Your task to perform on an android device: Open my contact list Image 0: 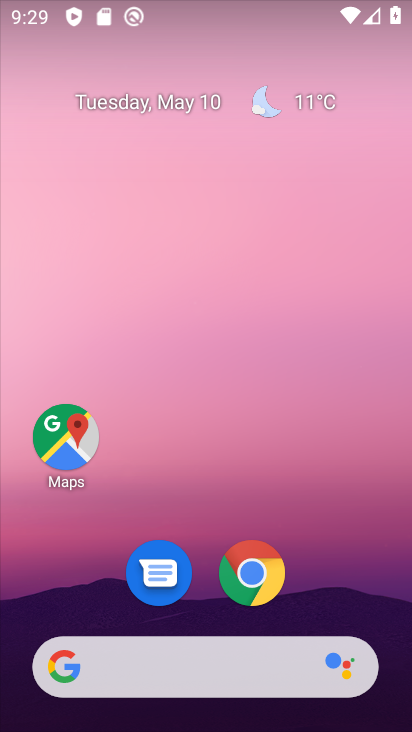
Step 0: drag from (304, 507) to (276, 137)
Your task to perform on an android device: Open my contact list Image 1: 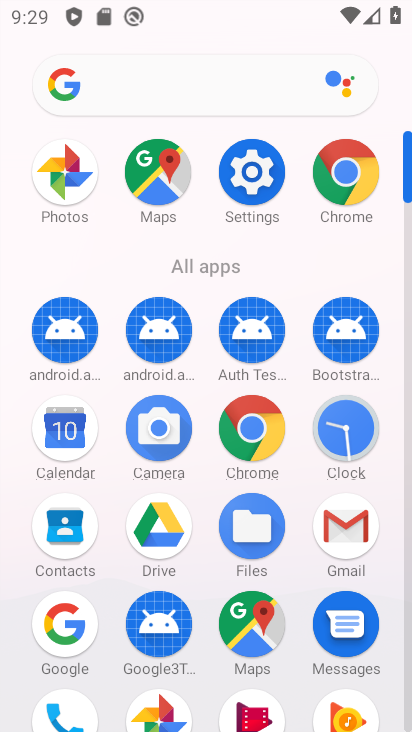
Step 1: drag from (310, 653) to (316, 303)
Your task to perform on an android device: Open my contact list Image 2: 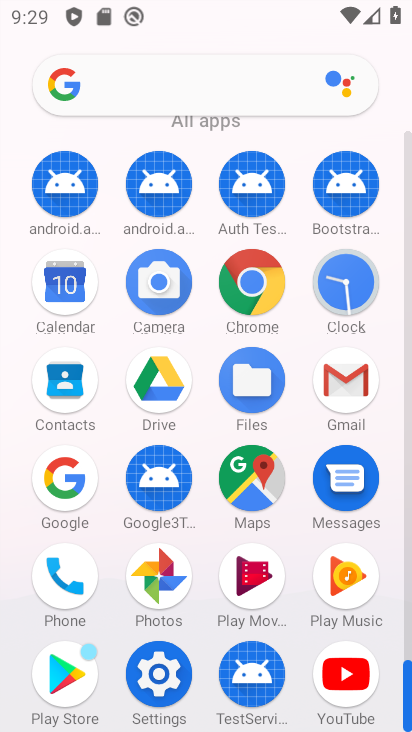
Step 2: click (85, 572)
Your task to perform on an android device: Open my contact list Image 3: 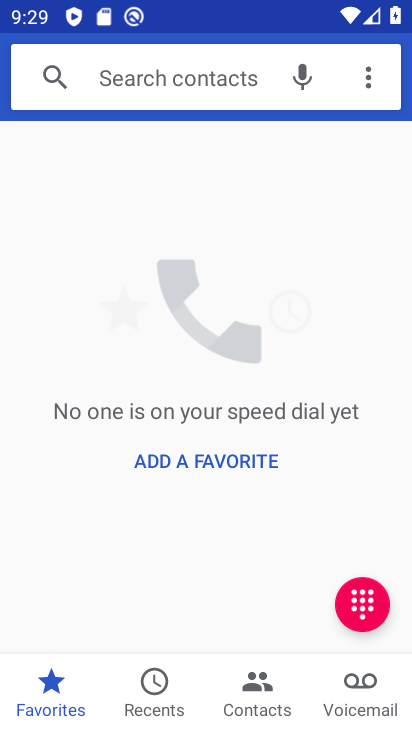
Step 3: click (237, 705)
Your task to perform on an android device: Open my contact list Image 4: 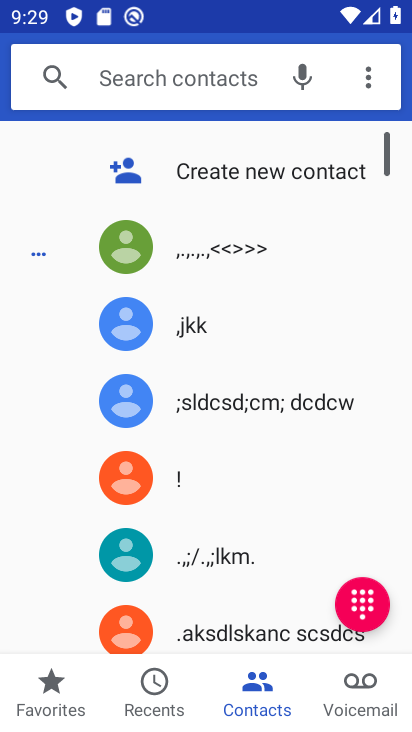
Step 4: task complete